Your task to perform on an android device: Open calendar and show me the first week of next month Image 0: 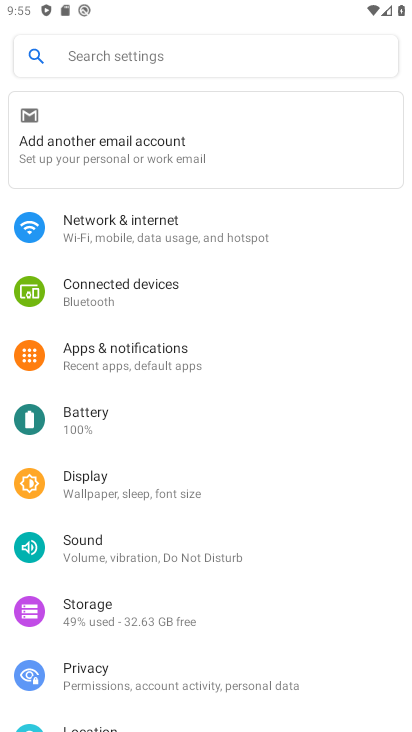
Step 0: press home button
Your task to perform on an android device: Open calendar and show me the first week of next month Image 1: 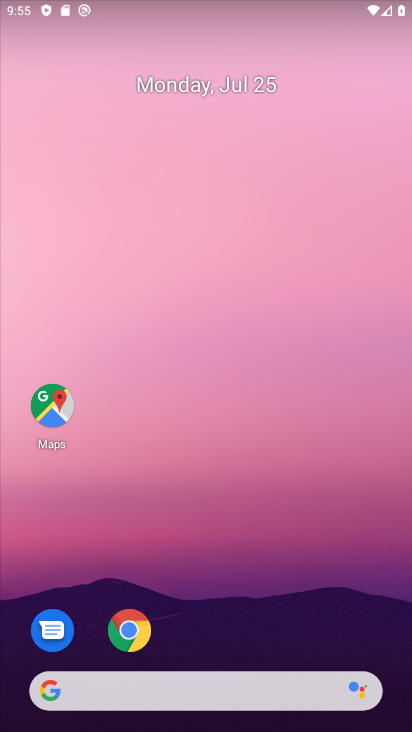
Step 1: drag from (193, 653) to (298, 47)
Your task to perform on an android device: Open calendar and show me the first week of next month Image 2: 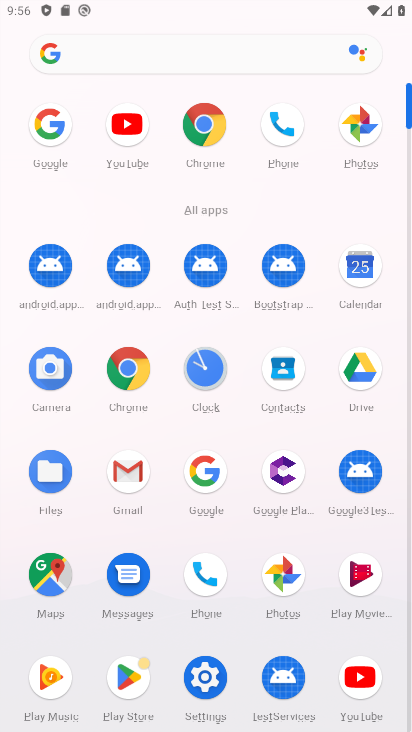
Step 2: click (363, 280)
Your task to perform on an android device: Open calendar and show me the first week of next month Image 3: 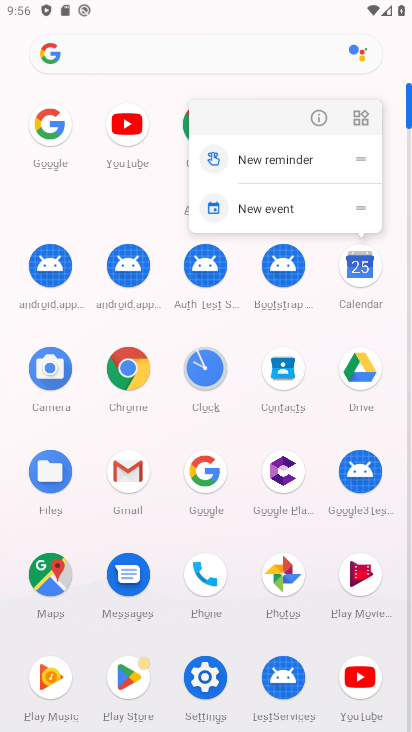
Step 3: click (356, 273)
Your task to perform on an android device: Open calendar and show me the first week of next month Image 4: 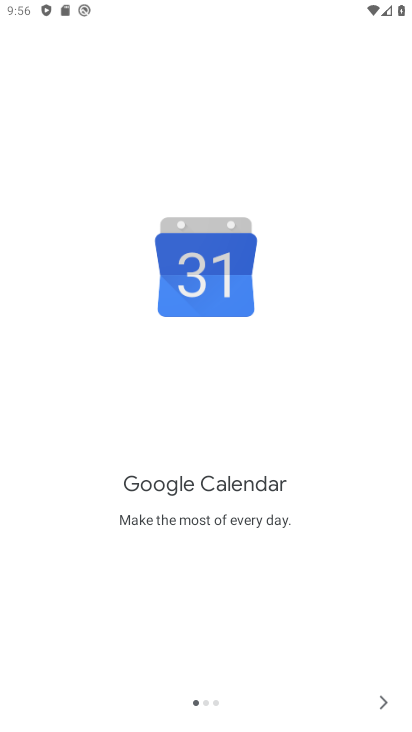
Step 4: click (386, 699)
Your task to perform on an android device: Open calendar and show me the first week of next month Image 5: 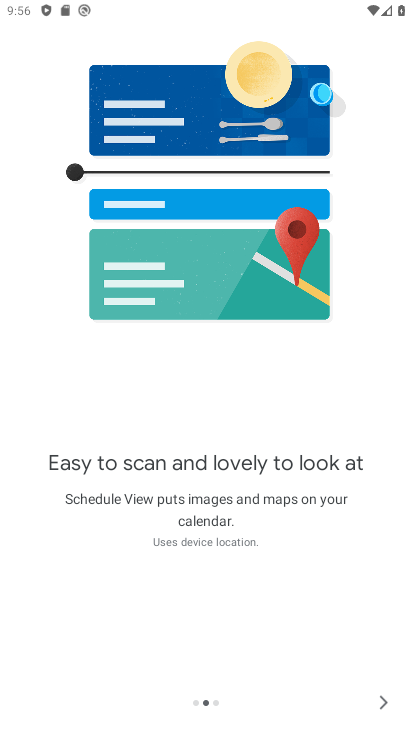
Step 5: click (376, 697)
Your task to perform on an android device: Open calendar and show me the first week of next month Image 6: 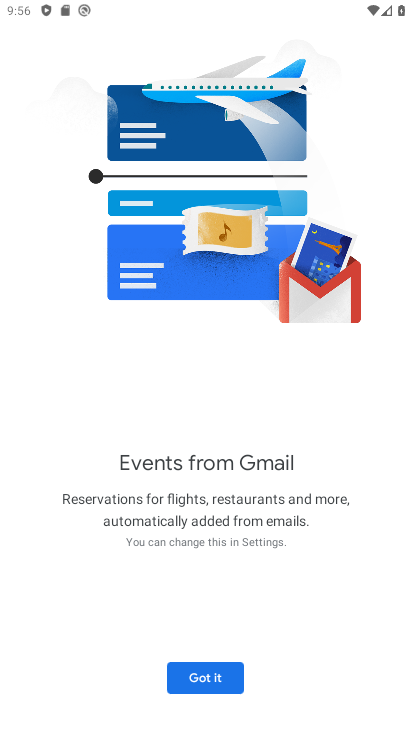
Step 6: click (204, 680)
Your task to perform on an android device: Open calendar and show me the first week of next month Image 7: 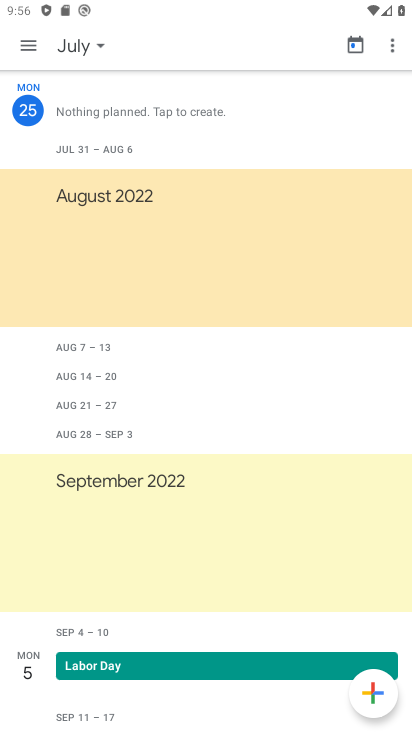
Step 7: click (29, 41)
Your task to perform on an android device: Open calendar and show me the first week of next month Image 8: 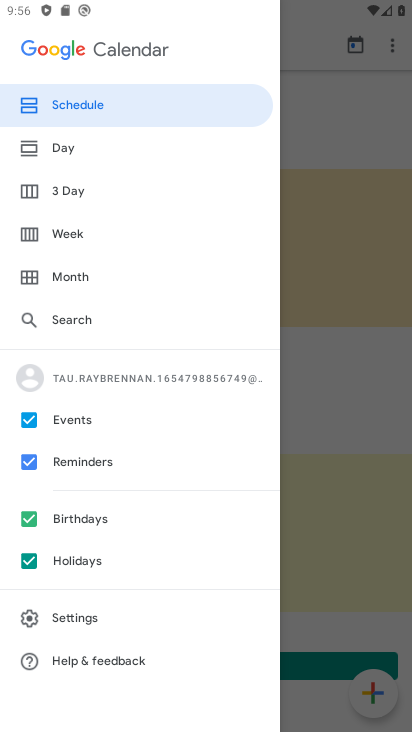
Step 8: click (78, 232)
Your task to perform on an android device: Open calendar and show me the first week of next month Image 9: 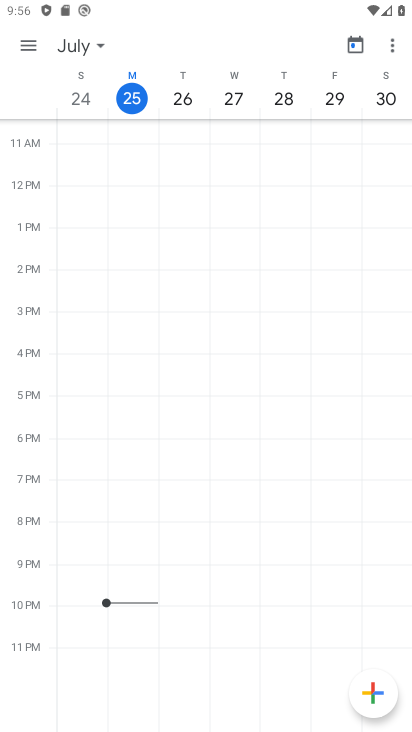
Step 9: task complete